Your task to perform on an android device: Open Chrome and go to the settings page Image 0: 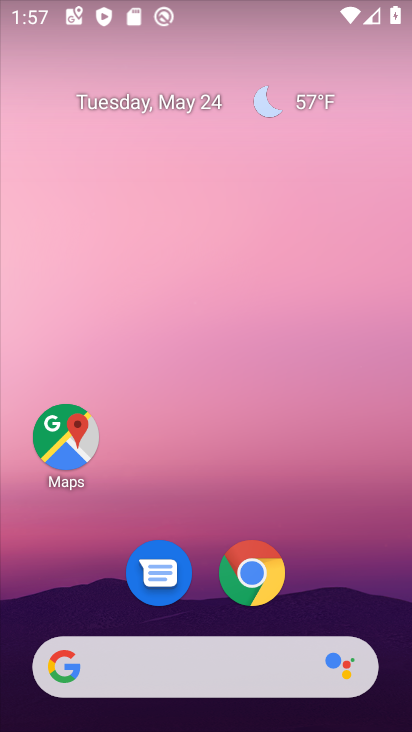
Step 0: click (258, 574)
Your task to perform on an android device: Open Chrome and go to the settings page Image 1: 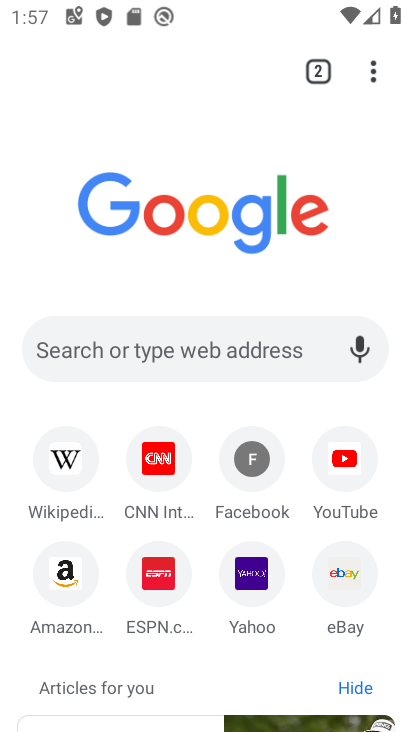
Step 1: click (379, 62)
Your task to perform on an android device: Open Chrome and go to the settings page Image 2: 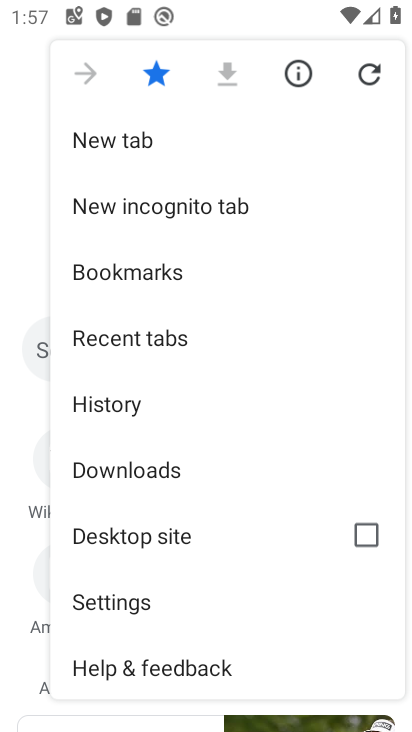
Step 2: click (137, 605)
Your task to perform on an android device: Open Chrome and go to the settings page Image 3: 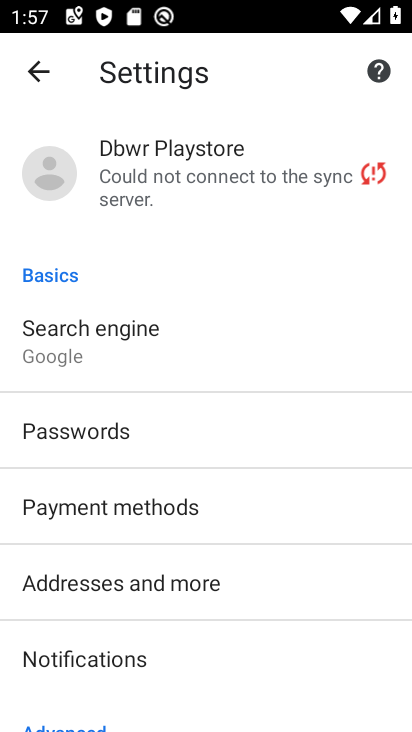
Step 3: task complete